Your task to perform on an android device: Go to network settings Image 0: 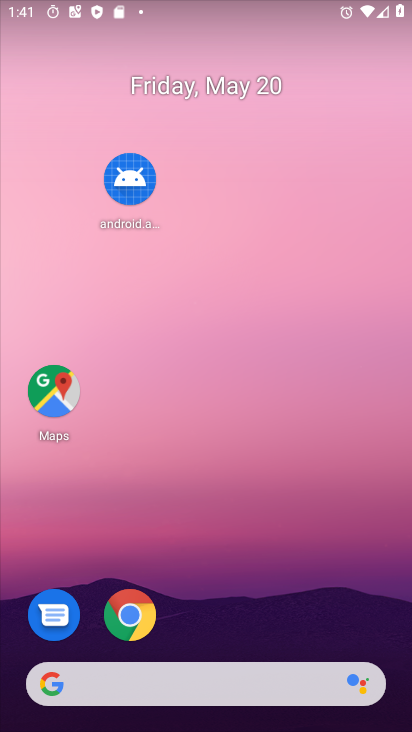
Step 0: drag from (304, 558) to (244, 0)
Your task to perform on an android device: Go to network settings Image 1: 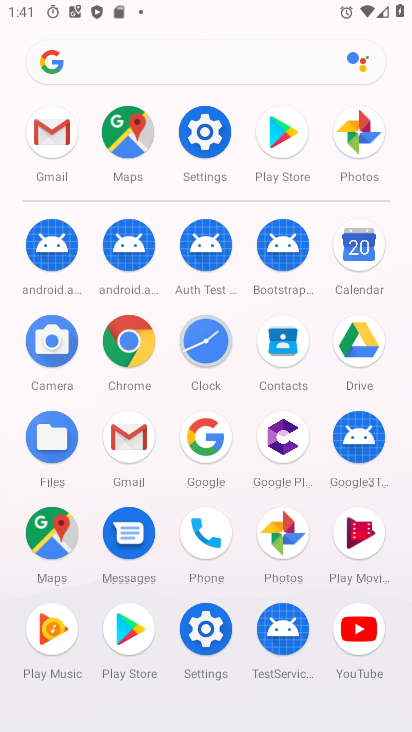
Step 1: click (207, 160)
Your task to perform on an android device: Go to network settings Image 2: 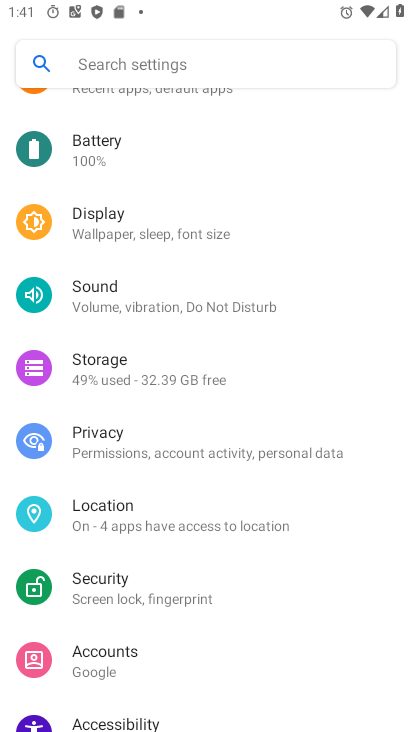
Step 2: drag from (194, 177) to (252, 430)
Your task to perform on an android device: Go to network settings Image 3: 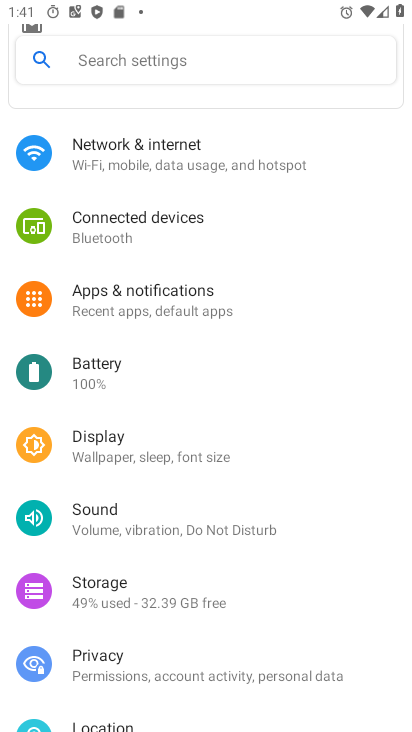
Step 3: click (154, 157)
Your task to perform on an android device: Go to network settings Image 4: 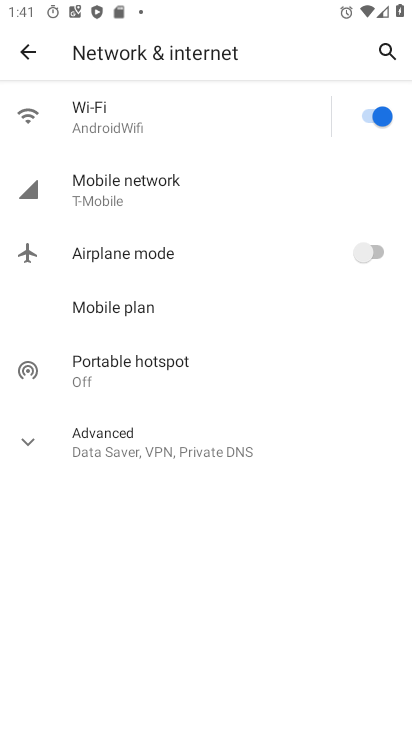
Step 4: task complete